Your task to perform on an android device: Go to CNN.com Image 0: 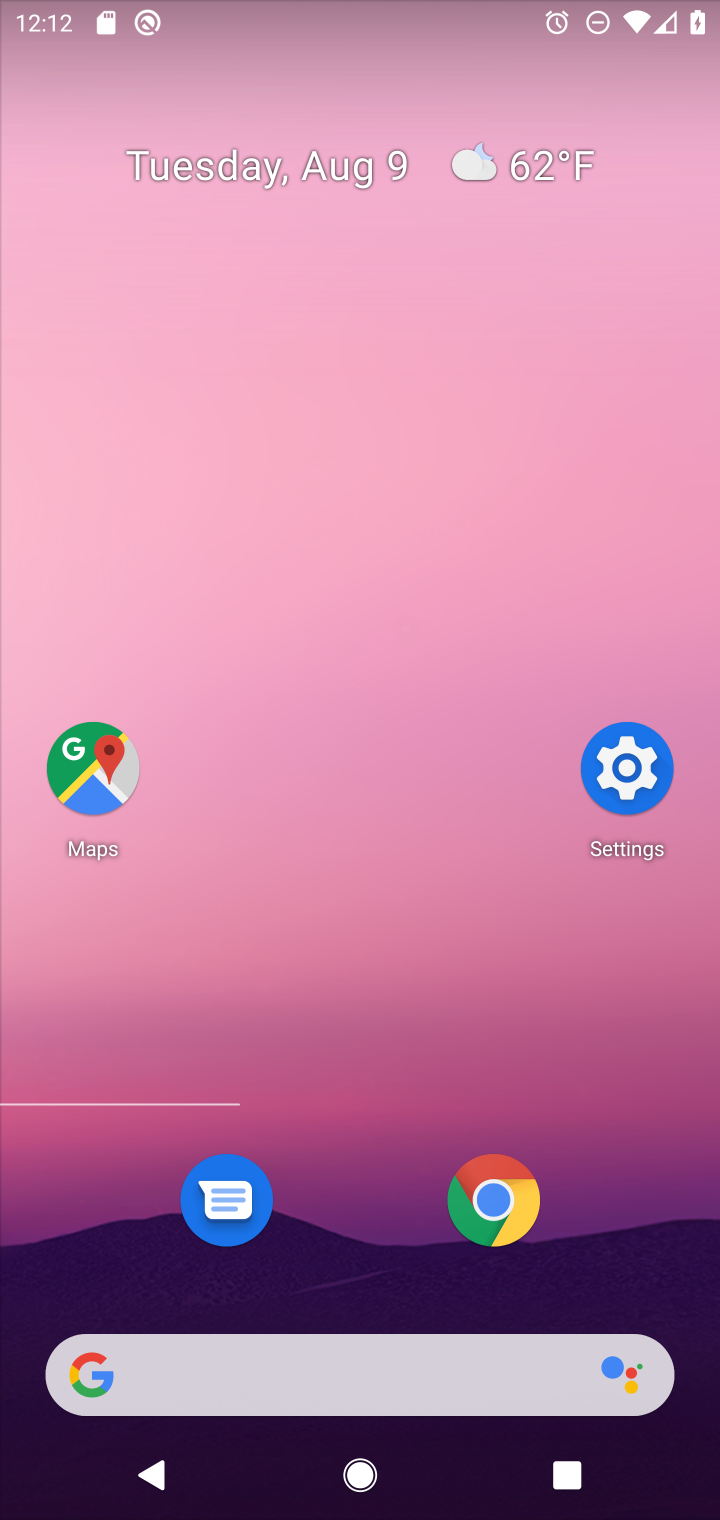
Step 0: press home button
Your task to perform on an android device: Go to CNN.com Image 1: 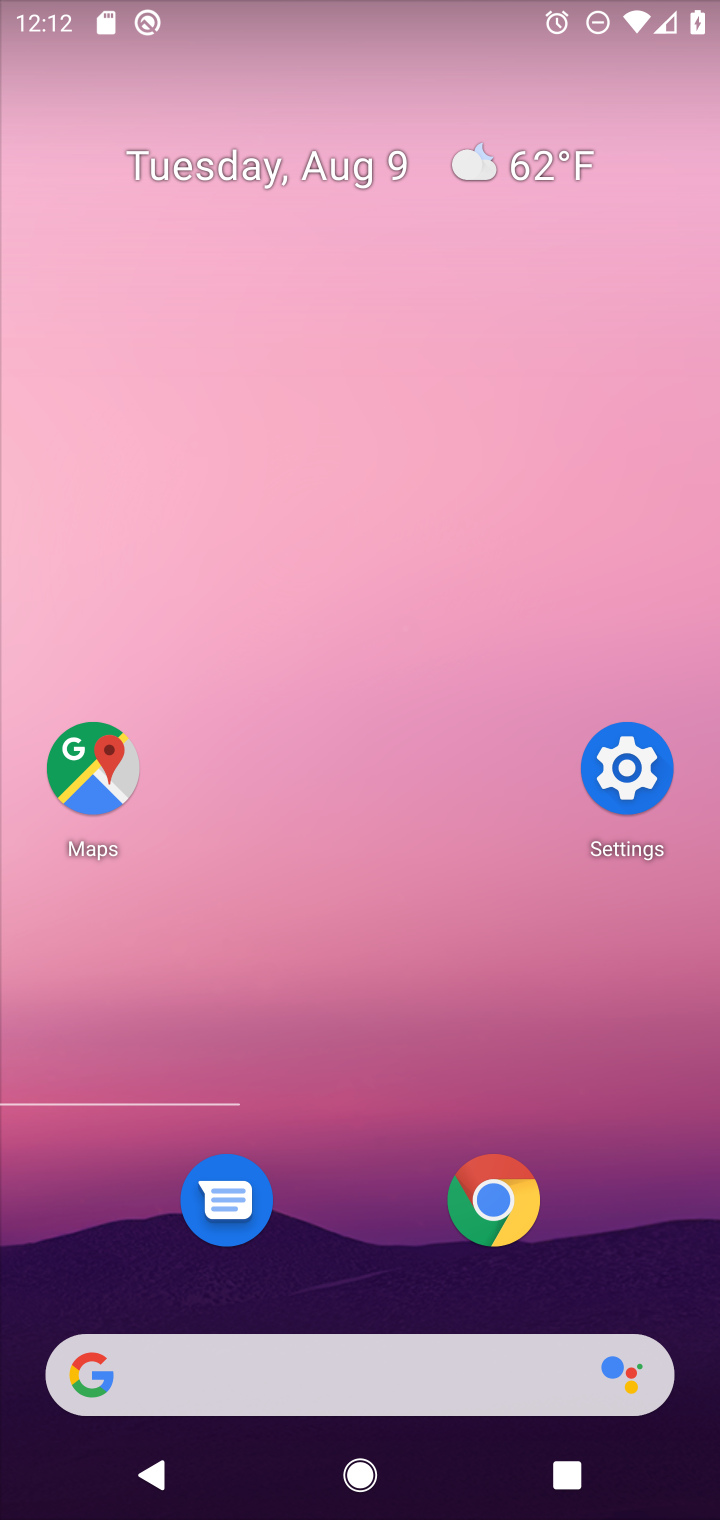
Step 1: click (499, 1187)
Your task to perform on an android device: Go to CNN.com Image 2: 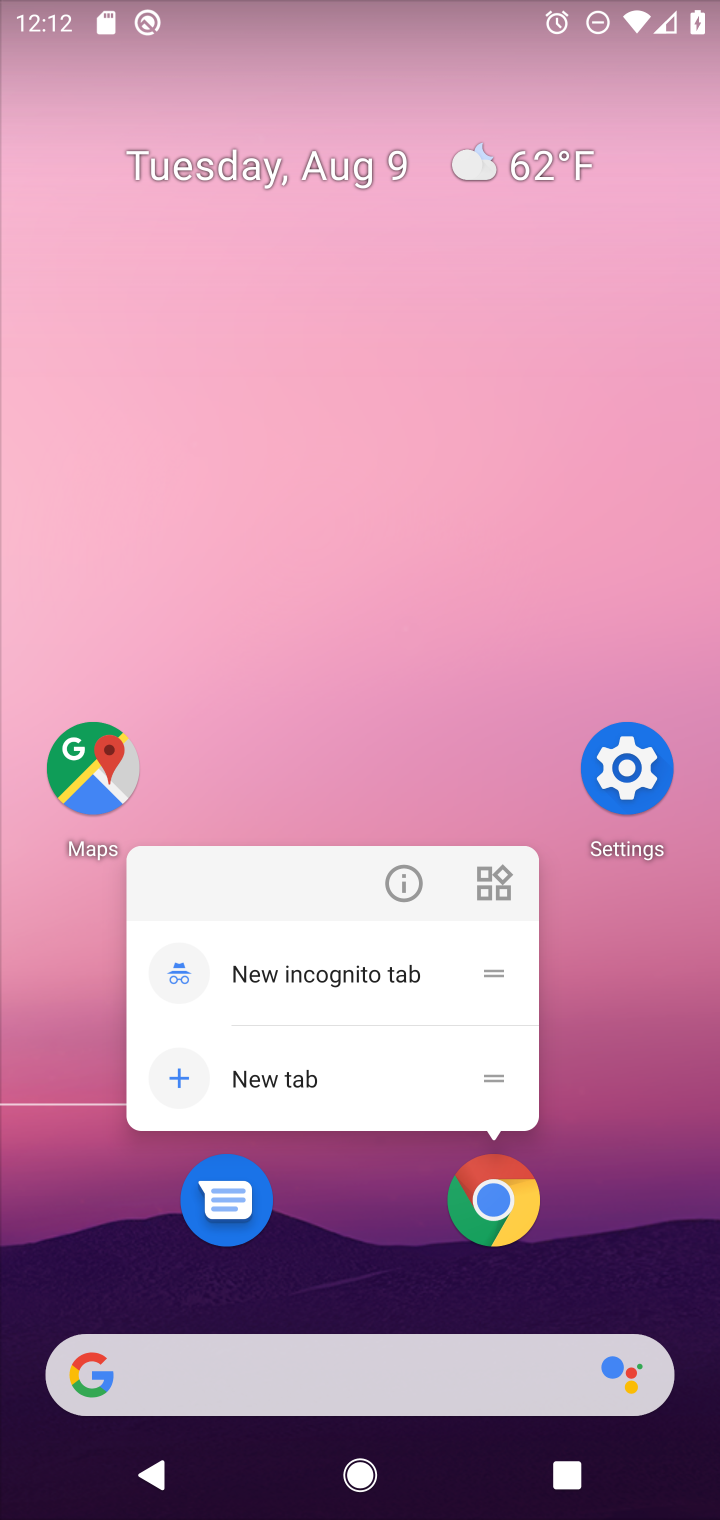
Step 2: click (499, 1194)
Your task to perform on an android device: Go to CNN.com Image 3: 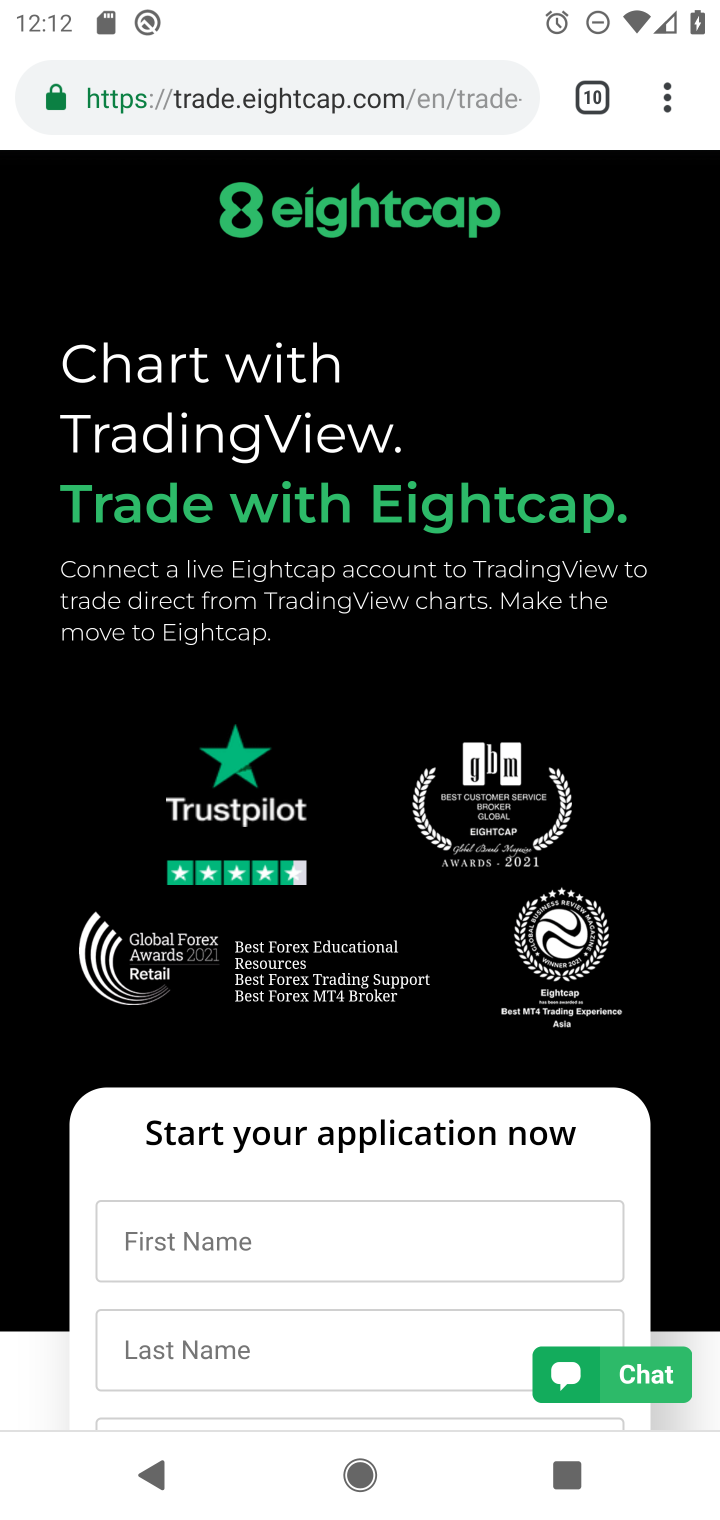
Step 3: drag from (664, 94) to (548, 299)
Your task to perform on an android device: Go to CNN.com Image 4: 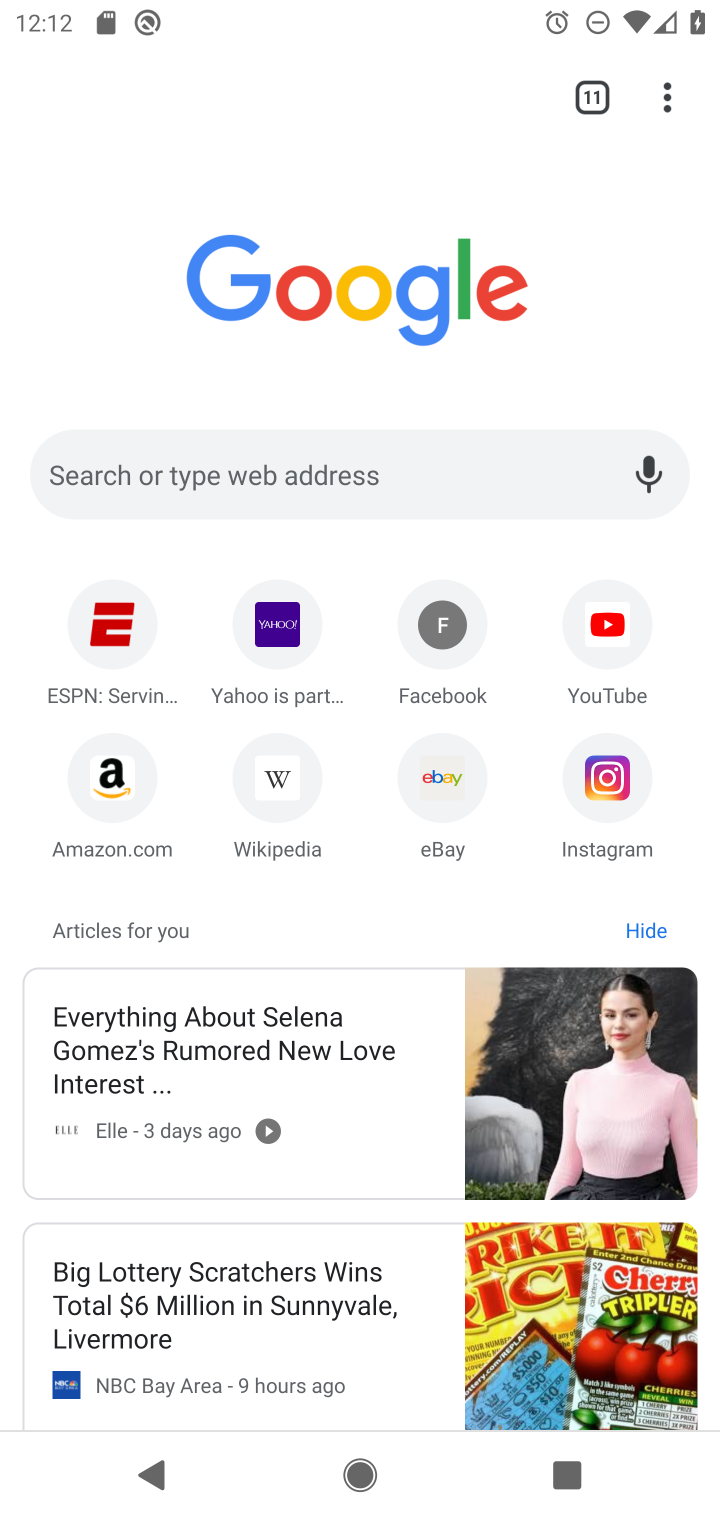
Step 4: click (238, 452)
Your task to perform on an android device: Go to CNN.com Image 5: 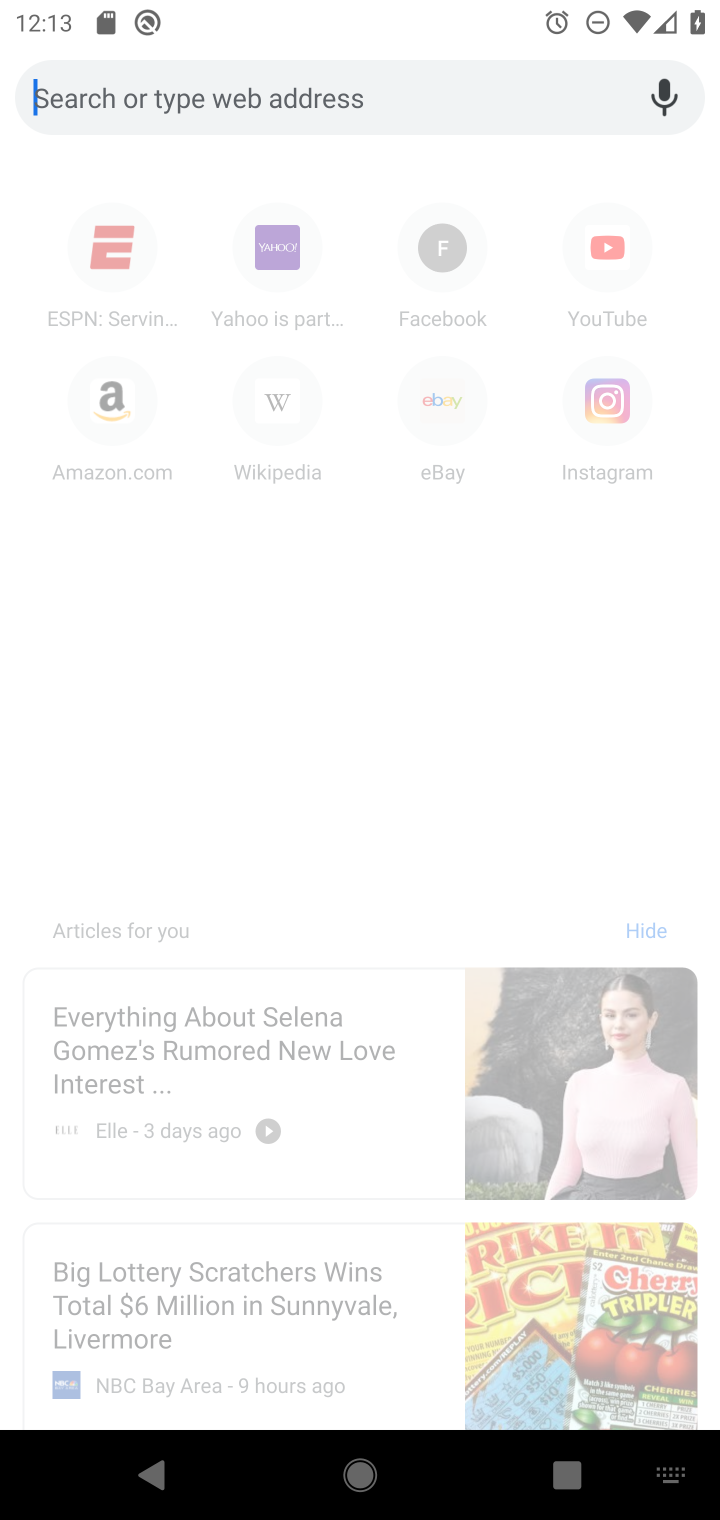
Step 5: type "cnn.com"
Your task to perform on an android device: Go to CNN.com Image 6: 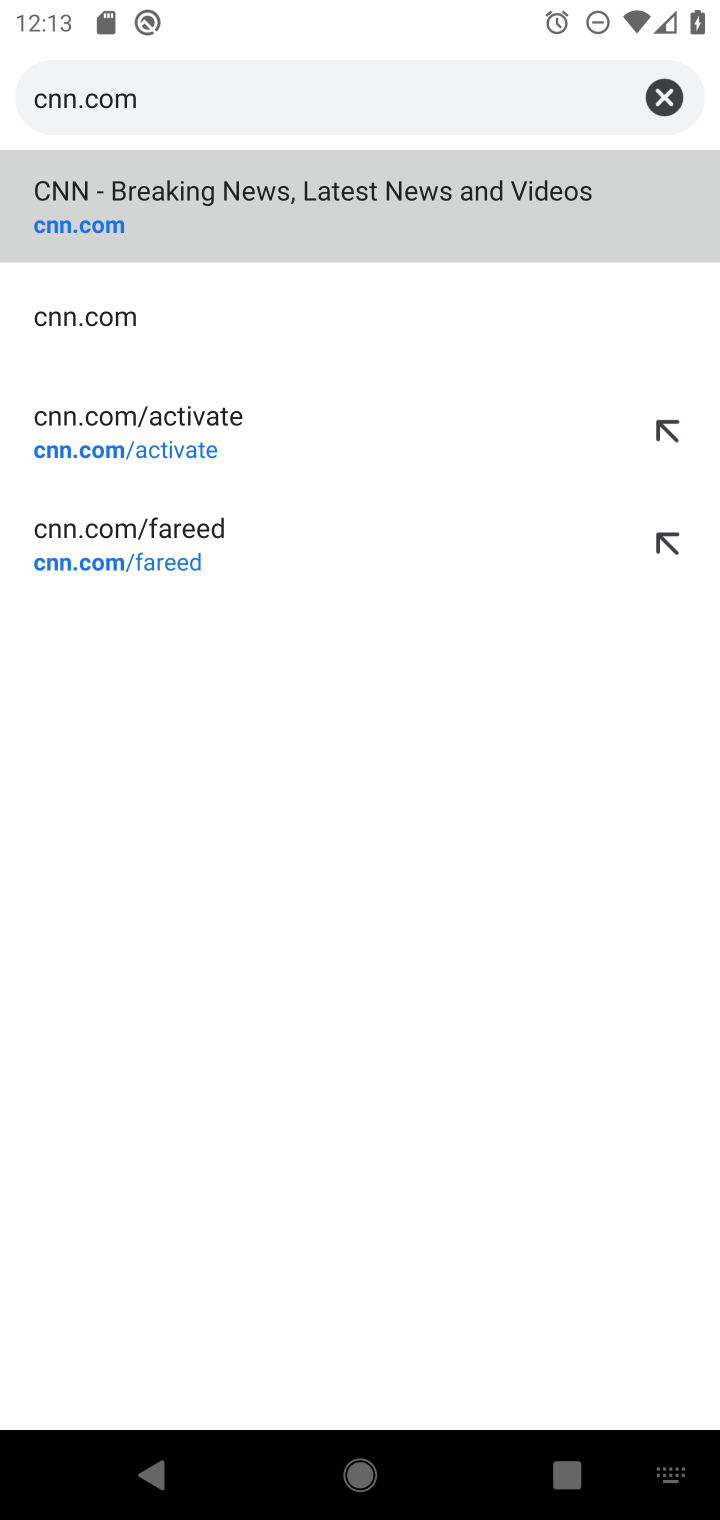
Step 6: click (372, 204)
Your task to perform on an android device: Go to CNN.com Image 7: 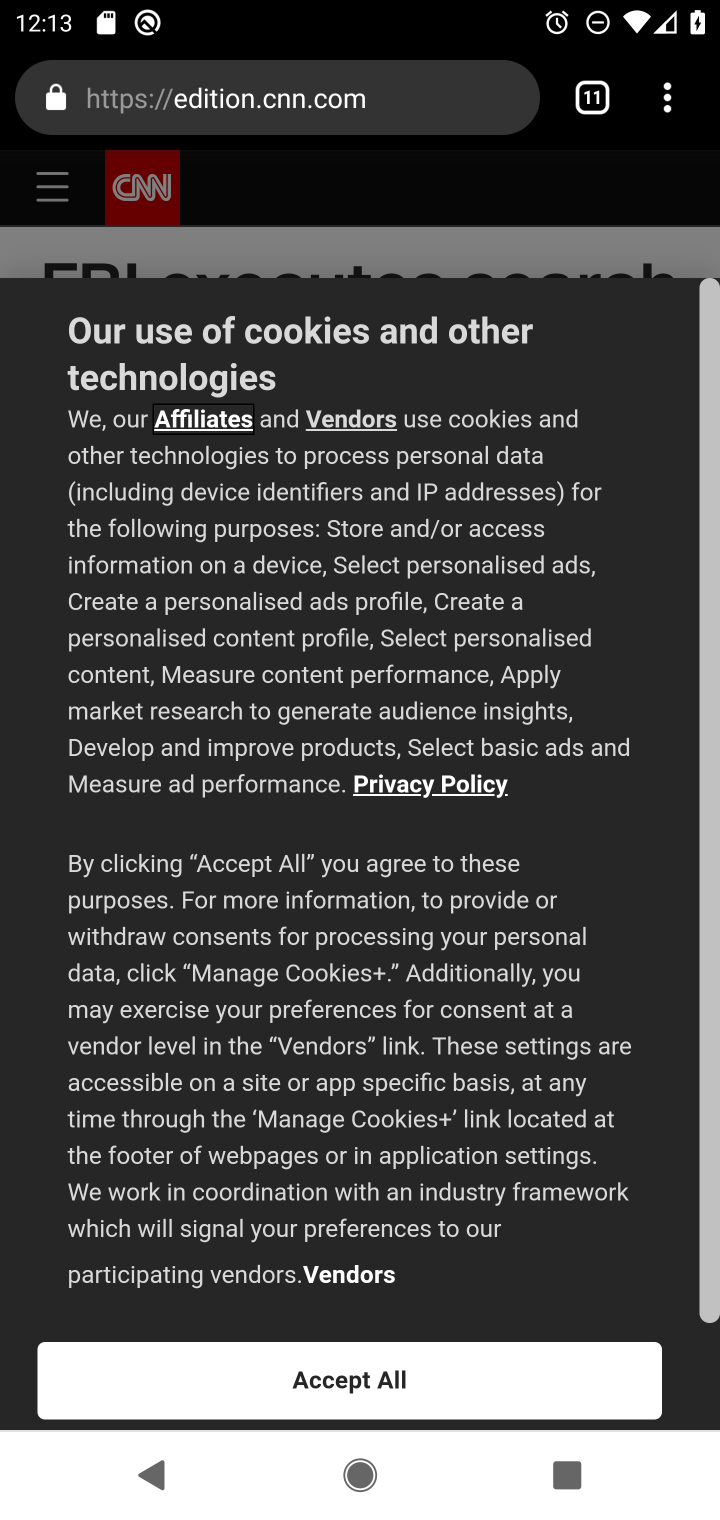
Step 7: click (377, 1376)
Your task to perform on an android device: Go to CNN.com Image 8: 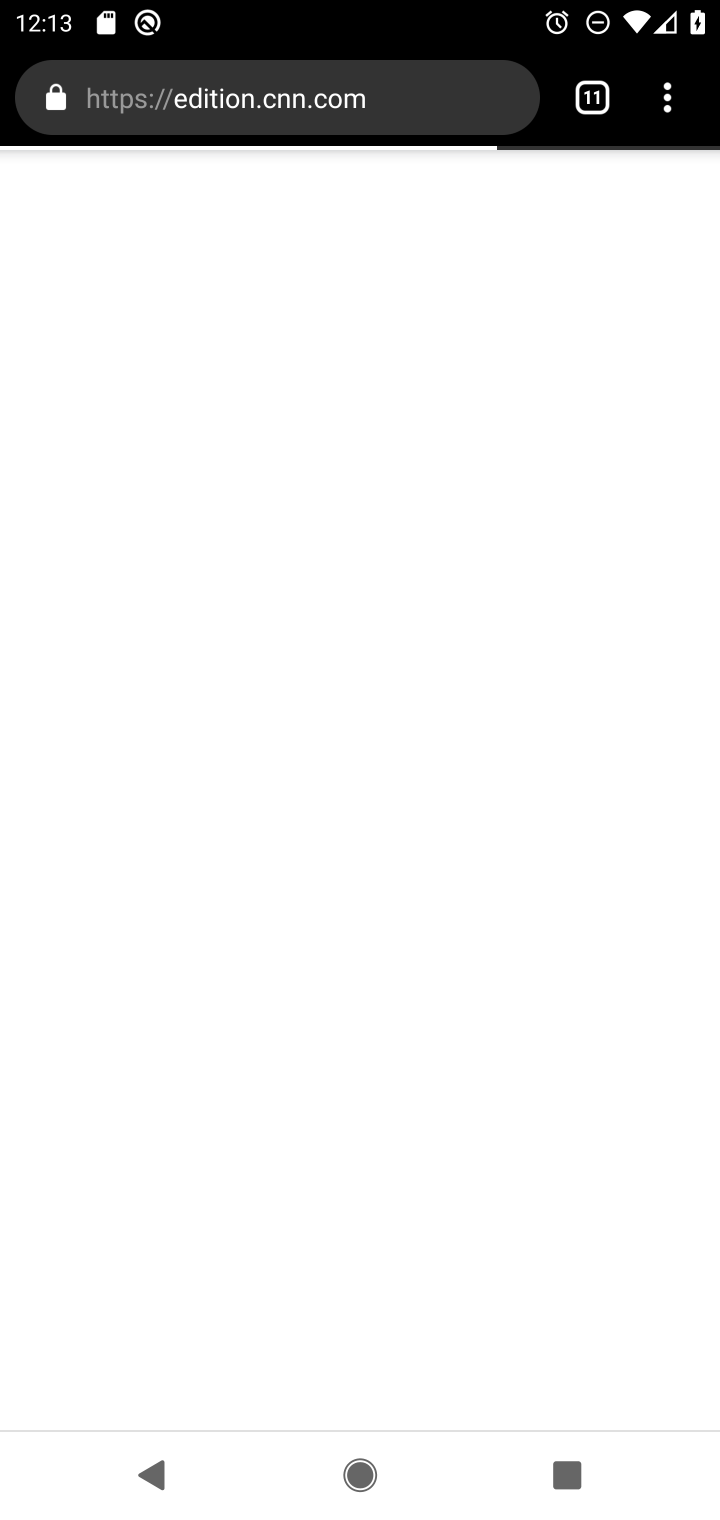
Step 8: task complete